Your task to perform on an android device: Open Google Chrome and open the bookmarks view Image 0: 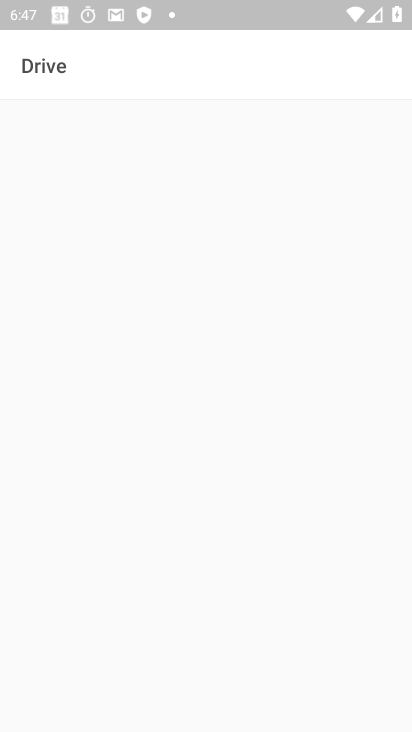
Step 0: drag from (376, 620) to (311, 177)
Your task to perform on an android device: Open Google Chrome and open the bookmarks view Image 1: 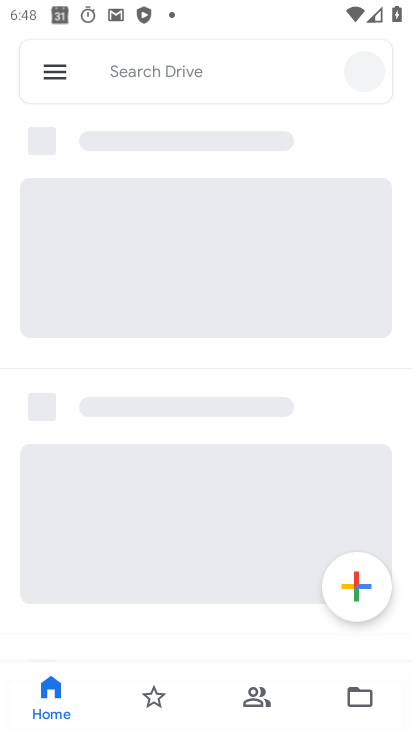
Step 1: press home button
Your task to perform on an android device: Open Google Chrome and open the bookmarks view Image 2: 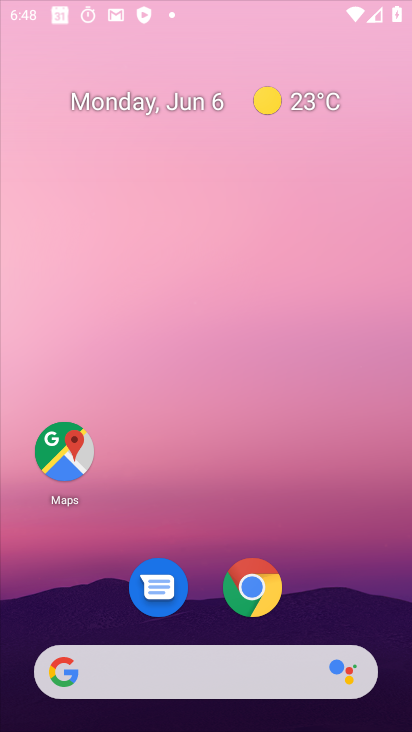
Step 2: drag from (383, 615) to (311, 72)
Your task to perform on an android device: Open Google Chrome and open the bookmarks view Image 3: 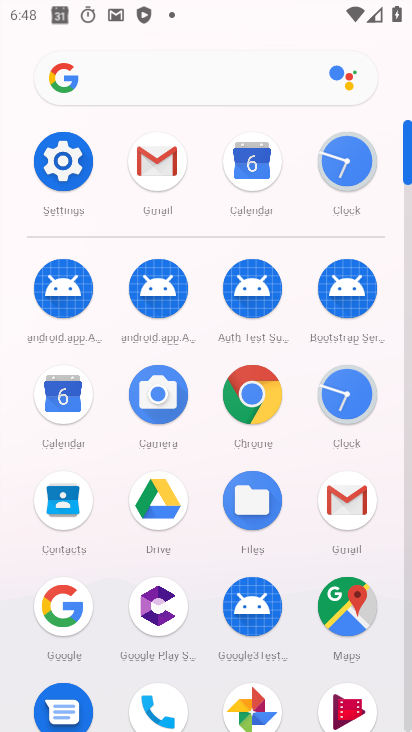
Step 3: click (264, 369)
Your task to perform on an android device: Open Google Chrome and open the bookmarks view Image 4: 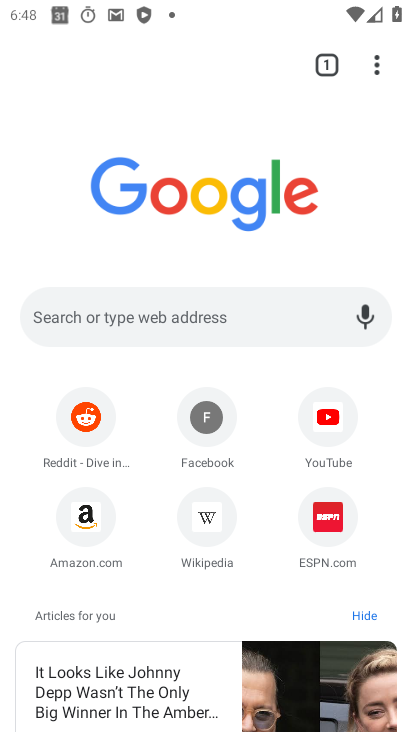
Step 4: click (375, 53)
Your task to perform on an android device: Open Google Chrome and open the bookmarks view Image 5: 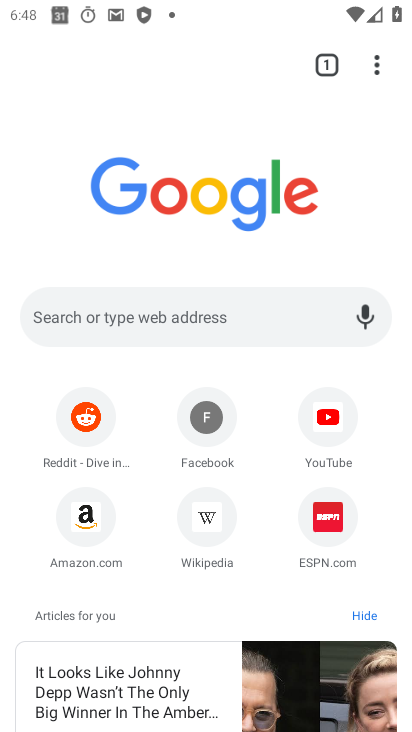
Step 5: click (381, 54)
Your task to perform on an android device: Open Google Chrome and open the bookmarks view Image 6: 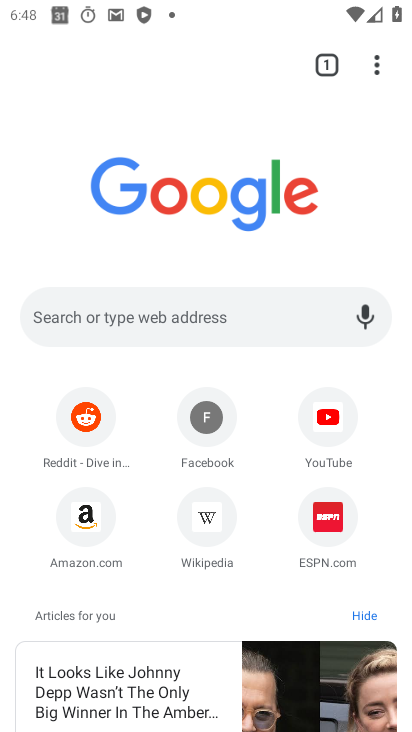
Step 6: click (376, 59)
Your task to perform on an android device: Open Google Chrome and open the bookmarks view Image 7: 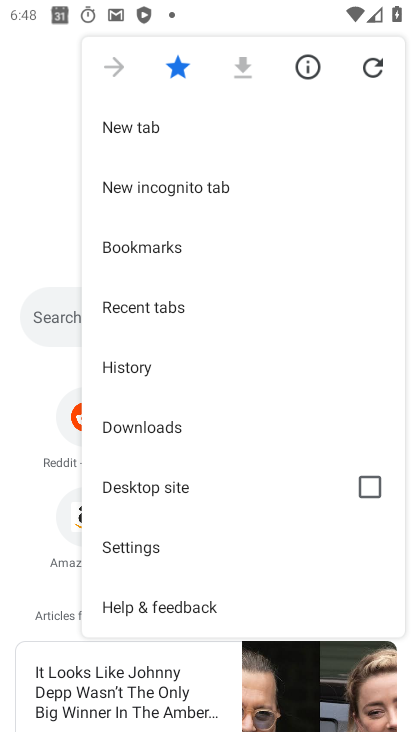
Step 7: click (175, 252)
Your task to perform on an android device: Open Google Chrome and open the bookmarks view Image 8: 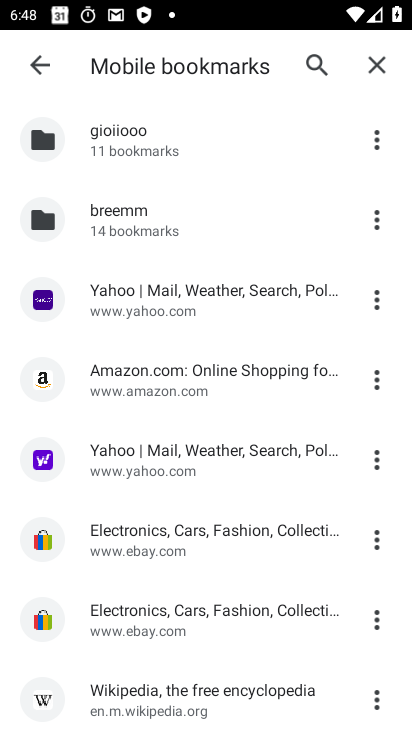
Step 8: task complete